Your task to perform on an android device: Go to notification settings Image 0: 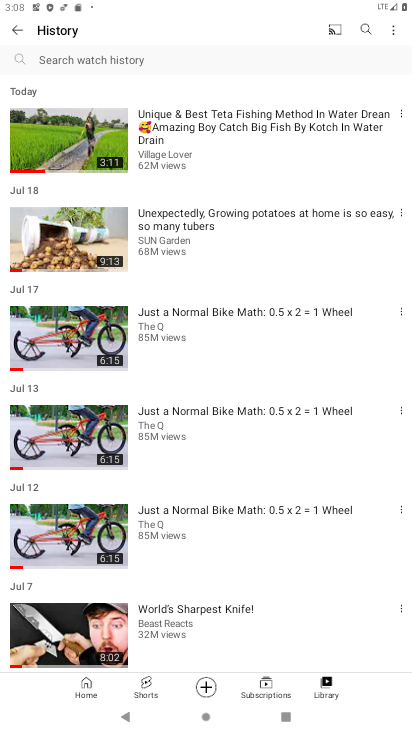
Step 0: press home button
Your task to perform on an android device: Go to notification settings Image 1: 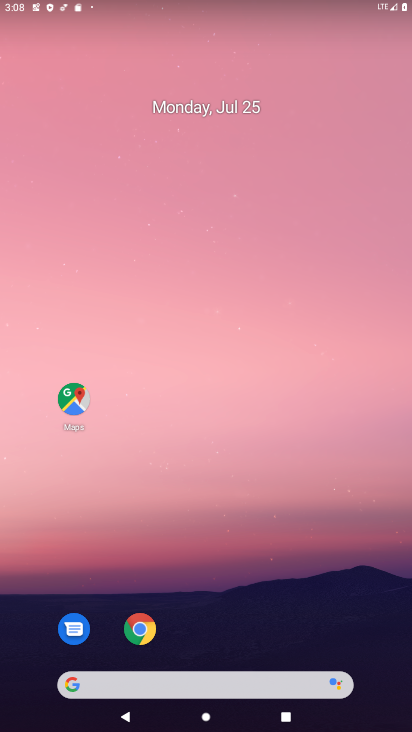
Step 1: drag from (187, 644) to (200, 209)
Your task to perform on an android device: Go to notification settings Image 2: 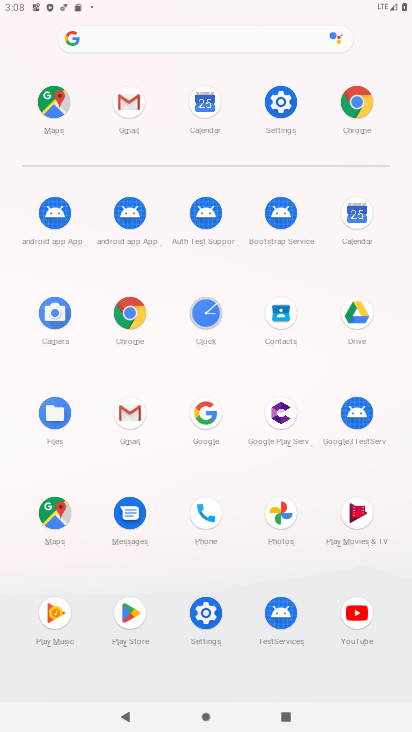
Step 2: click (196, 600)
Your task to perform on an android device: Go to notification settings Image 3: 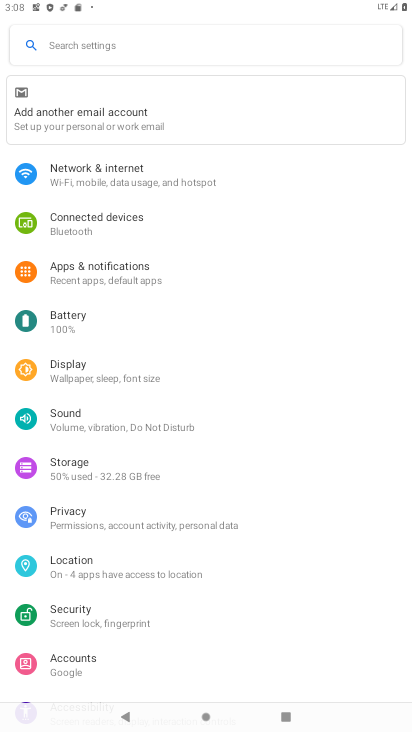
Step 3: click (142, 277)
Your task to perform on an android device: Go to notification settings Image 4: 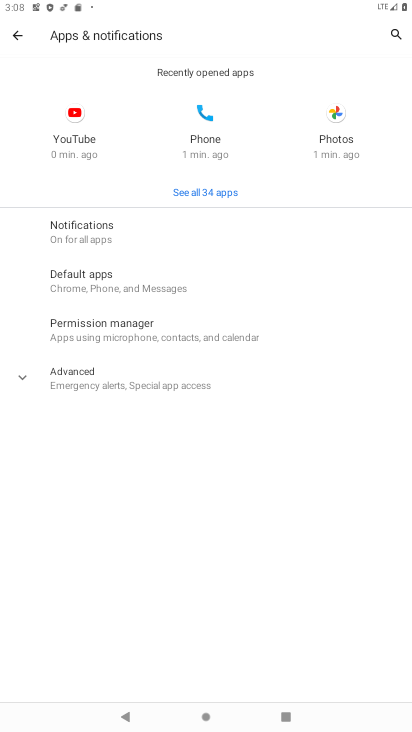
Step 4: click (152, 233)
Your task to perform on an android device: Go to notification settings Image 5: 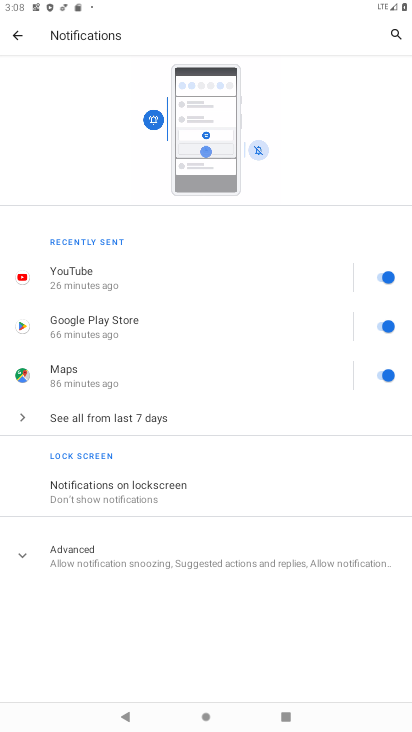
Step 5: click (125, 555)
Your task to perform on an android device: Go to notification settings Image 6: 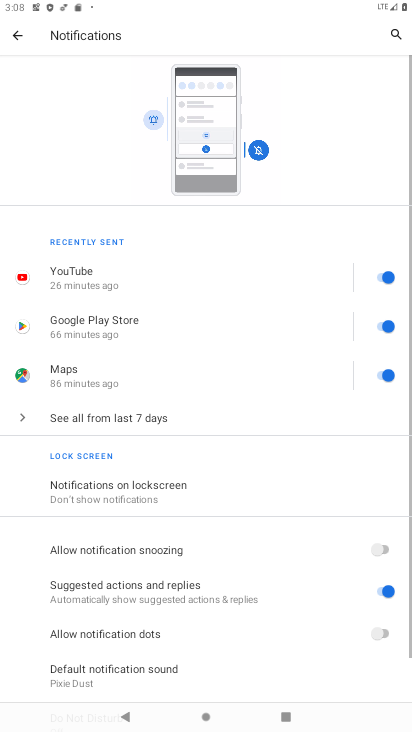
Step 6: task complete